Your task to perform on an android device: Show me popular videos on Youtube Image 0: 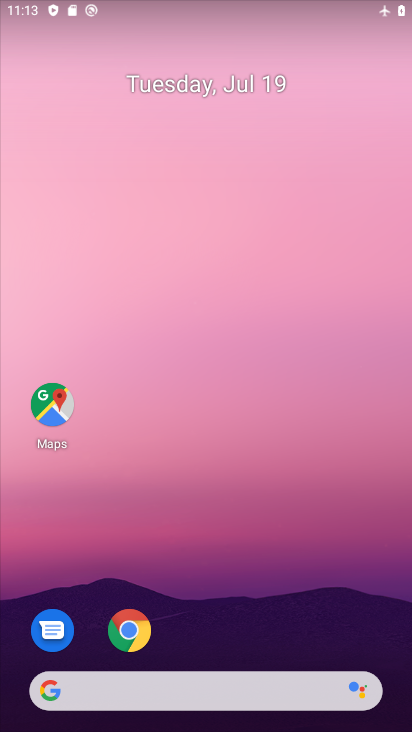
Step 0: drag from (226, 665) to (191, 75)
Your task to perform on an android device: Show me popular videos on Youtube Image 1: 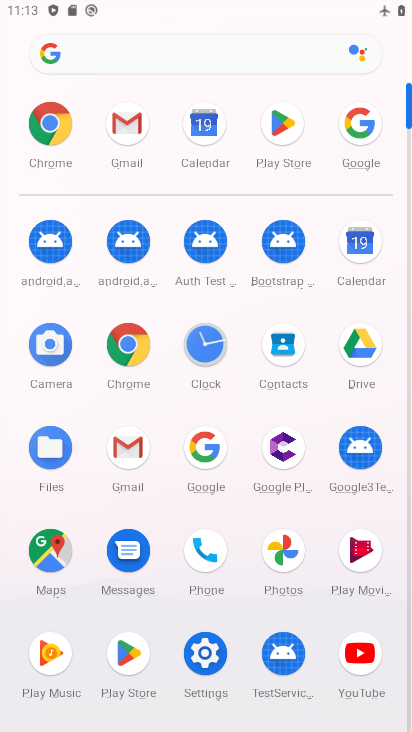
Step 1: click (363, 669)
Your task to perform on an android device: Show me popular videos on Youtube Image 2: 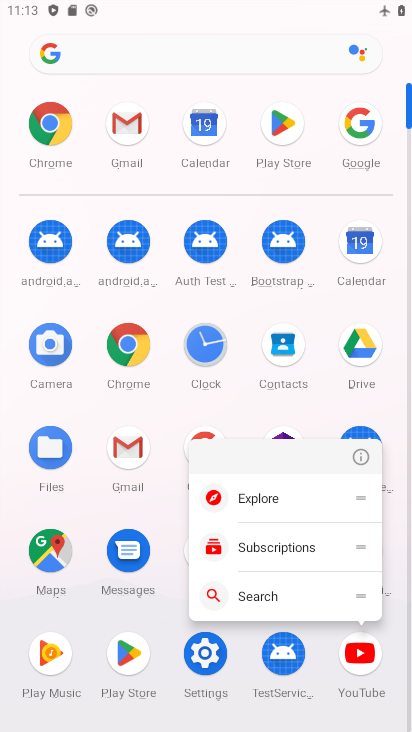
Step 2: click (372, 659)
Your task to perform on an android device: Show me popular videos on Youtube Image 3: 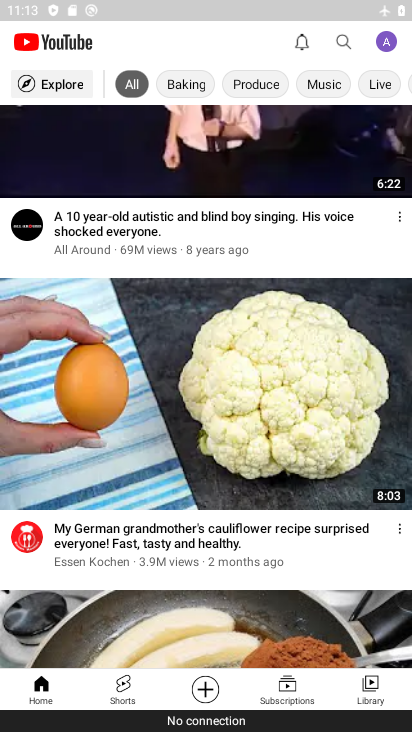
Step 3: task complete